Your task to perform on an android device: check storage Image 0: 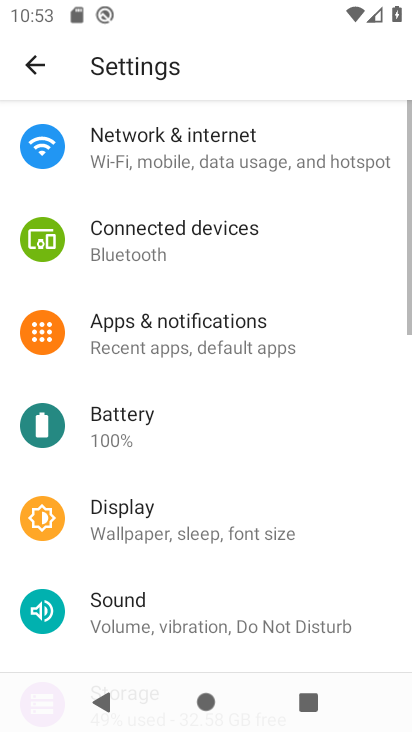
Step 0: press home button
Your task to perform on an android device: check storage Image 1: 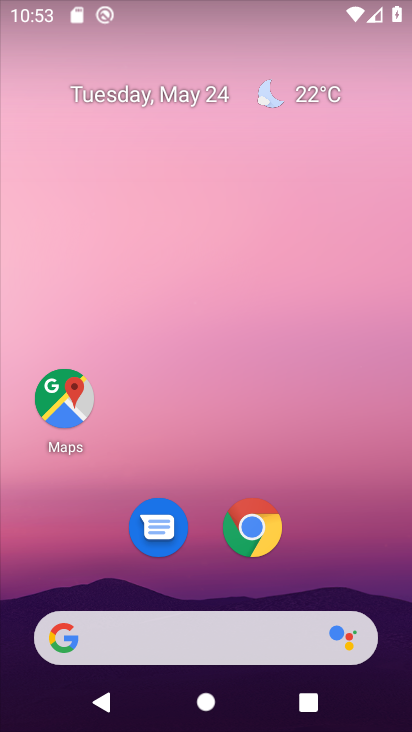
Step 1: drag from (276, 379) to (366, 64)
Your task to perform on an android device: check storage Image 2: 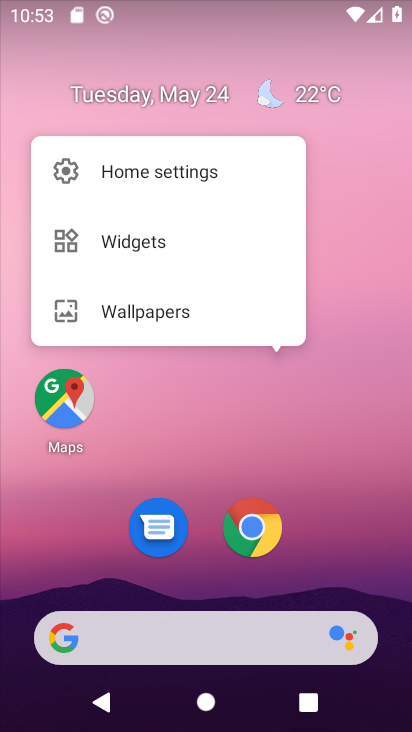
Step 2: drag from (168, 660) to (353, 146)
Your task to perform on an android device: check storage Image 3: 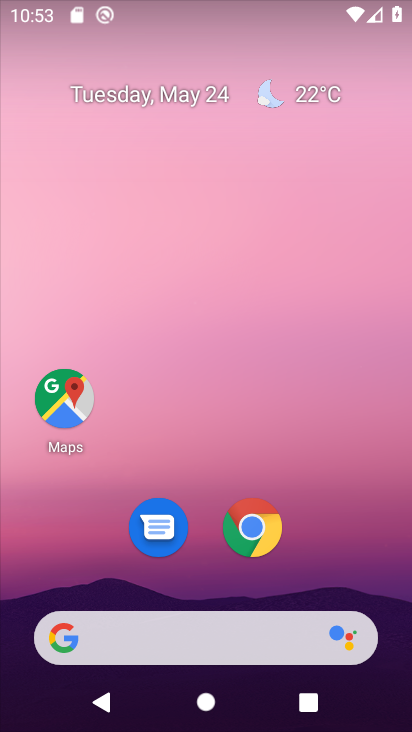
Step 3: drag from (195, 639) to (325, 122)
Your task to perform on an android device: check storage Image 4: 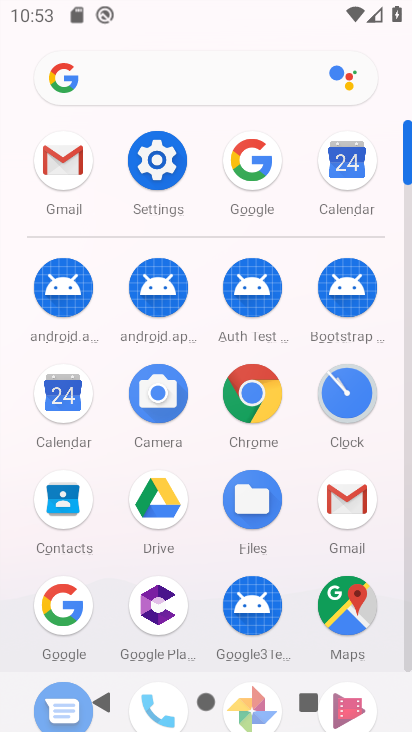
Step 4: click (162, 164)
Your task to perform on an android device: check storage Image 5: 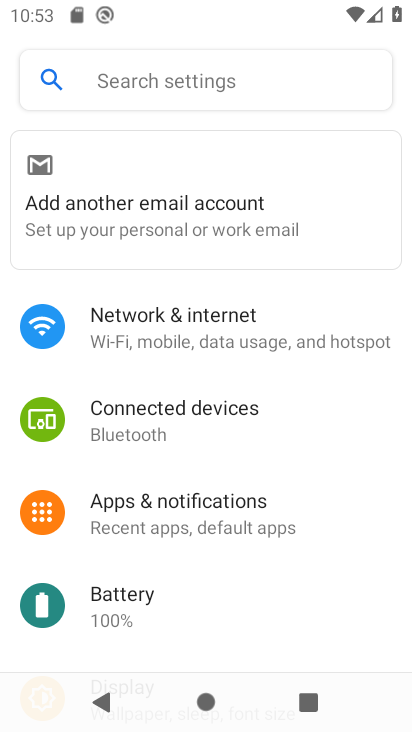
Step 5: drag from (148, 583) to (282, 215)
Your task to perform on an android device: check storage Image 6: 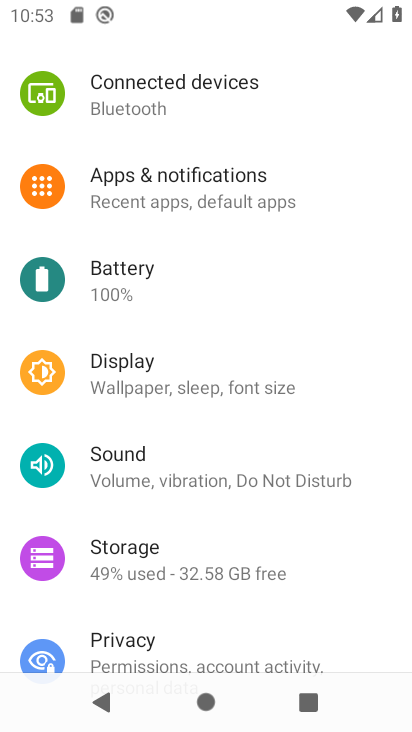
Step 6: click (159, 561)
Your task to perform on an android device: check storage Image 7: 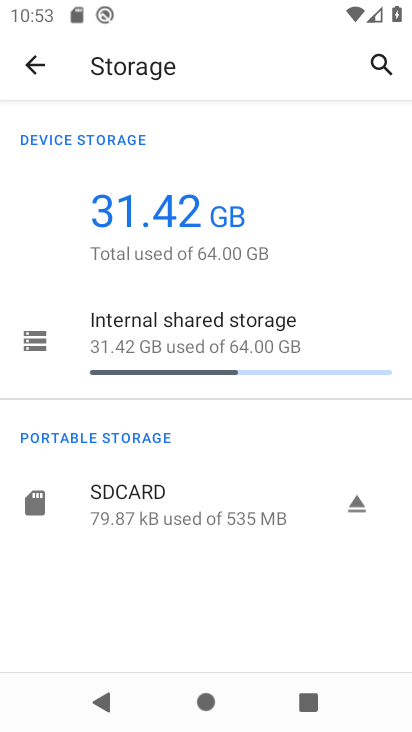
Step 7: task complete